Your task to perform on an android device: uninstall "Facebook Messenger" Image 0: 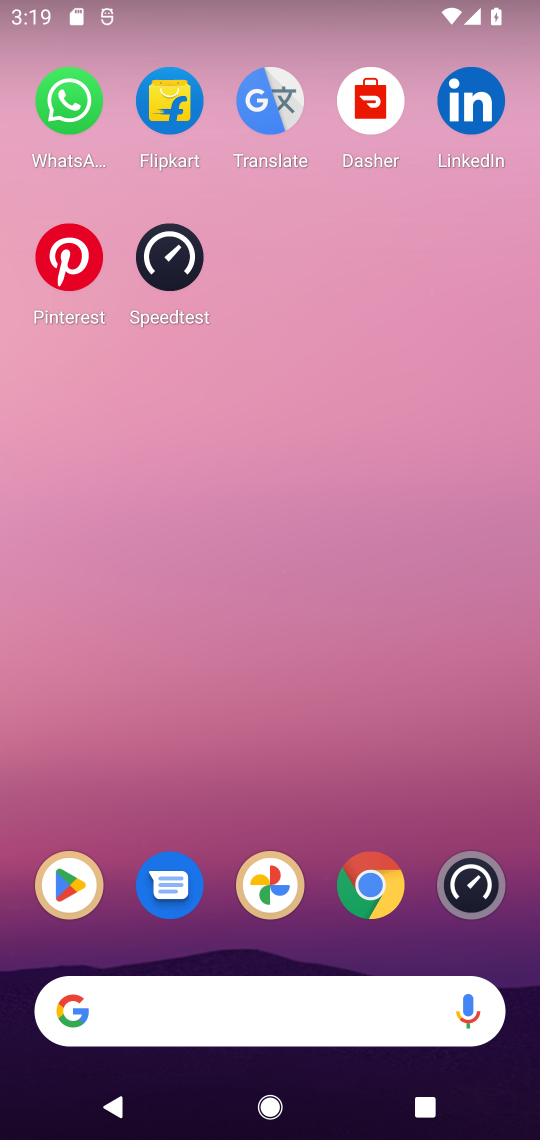
Step 0: click (66, 886)
Your task to perform on an android device: uninstall "Facebook Messenger" Image 1: 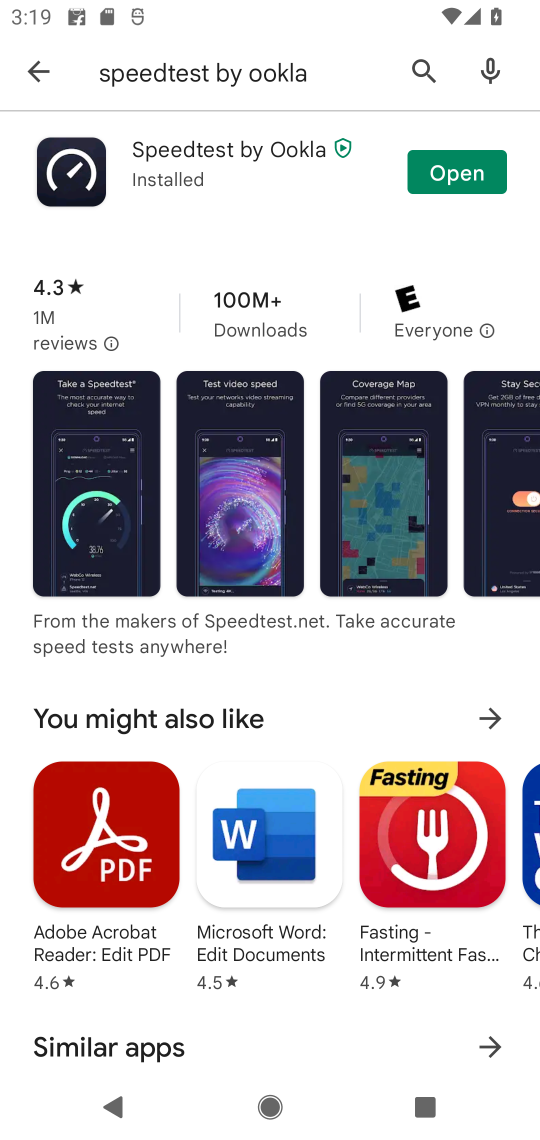
Step 1: click (427, 76)
Your task to perform on an android device: uninstall "Facebook Messenger" Image 2: 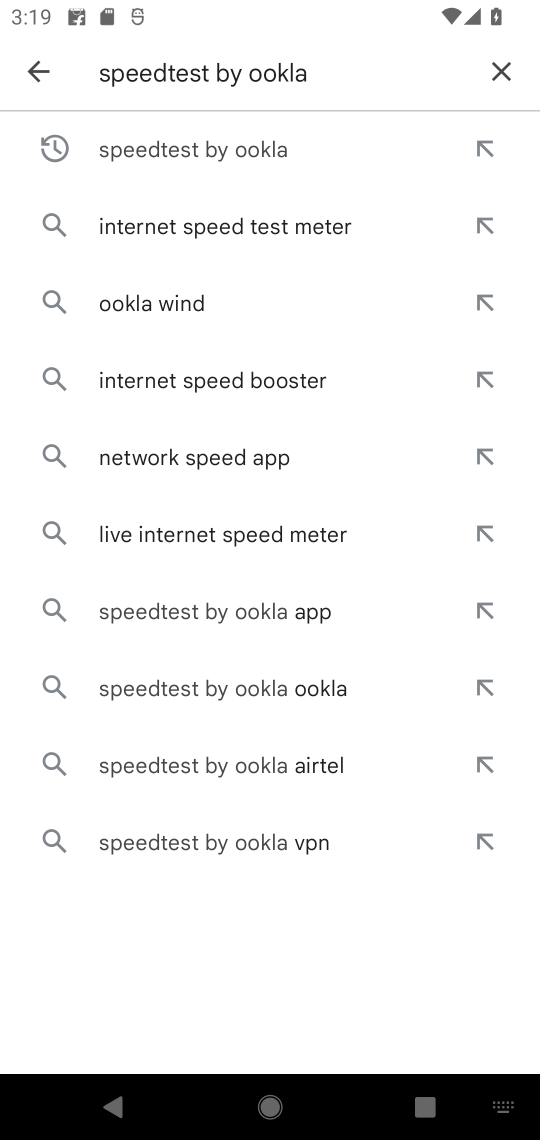
Step 2: click (505, 73)
Your task to perform on an android device: uninstall "Facebook Messenger" Image 3: 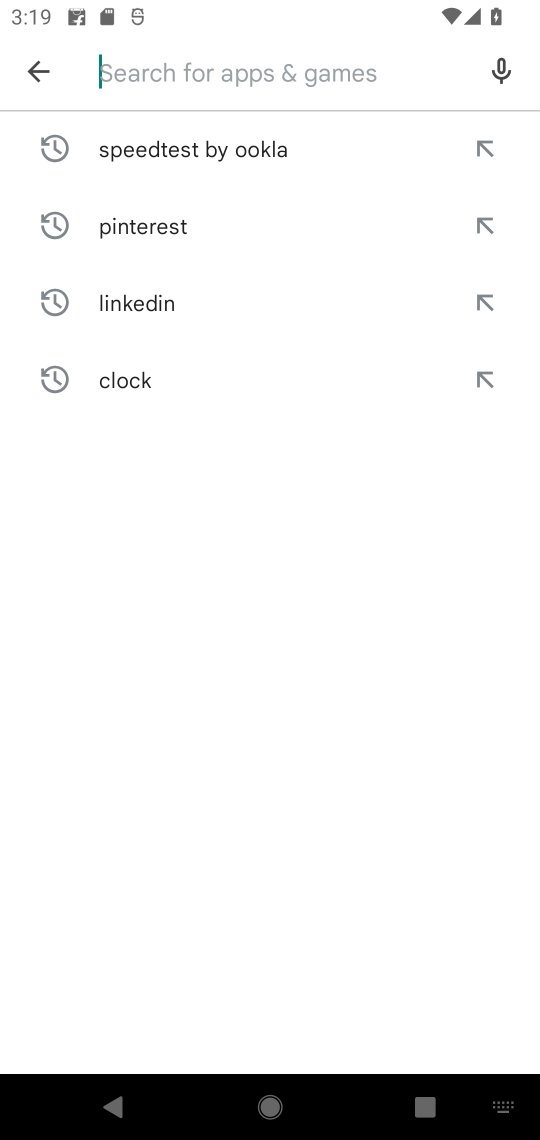
Step 3: type "Facebook Messenger"
Your task to perform on an android device: uninstall "Facebook Messenger" Image 4: 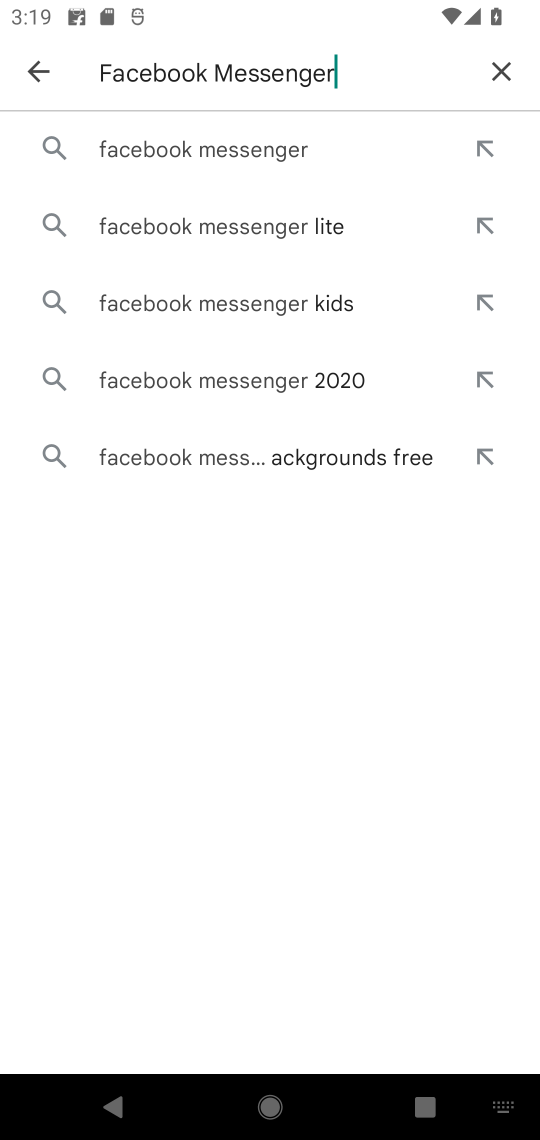
Step 4: click (125, 149)
Your task to perform on an android device: uninstall "Facebook Messenger" Image 5: 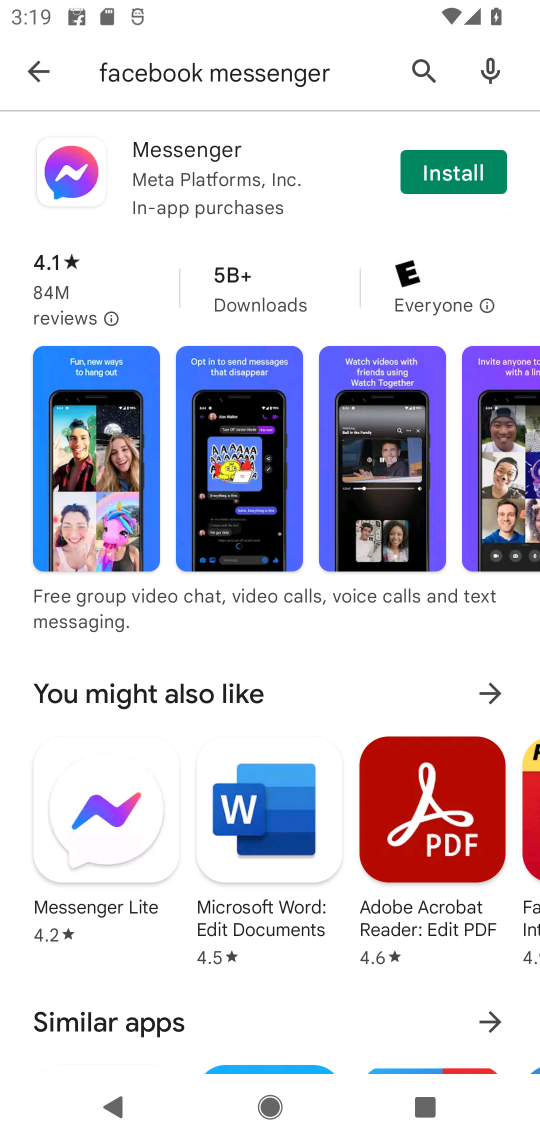
Step 5: task complete